Your task to perform on an android device: Open Chrome and go to the settings page Image 0: 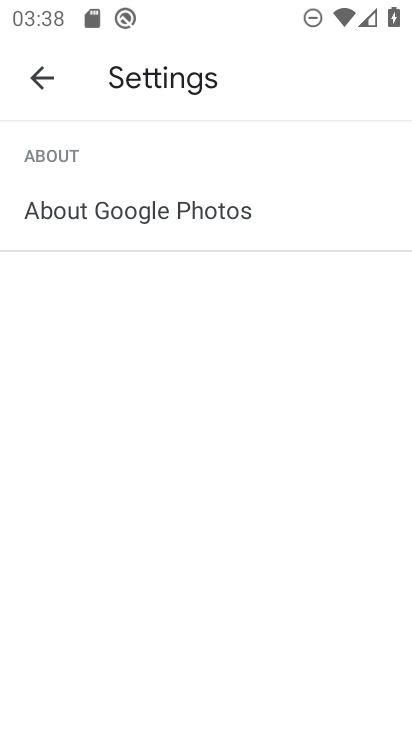
Step 0: press home button
Your task to perform on an android device: Open Chrome and go to the settings page Image 1: 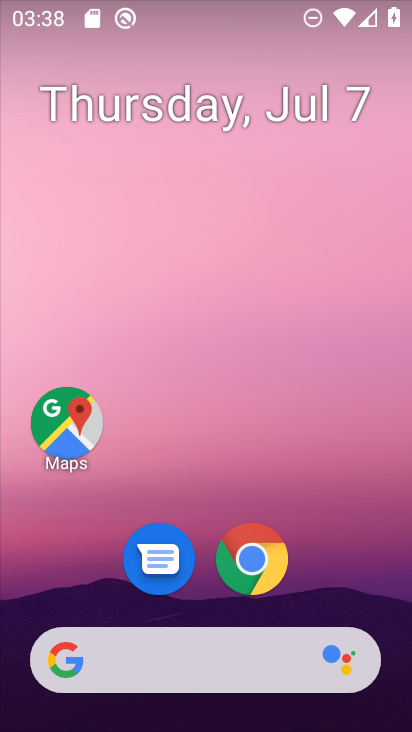
Step 1: drag from (372, 582) to (379, 153)
Your task to perform on an android device: Open Chrome and go to the settings page Image 2: 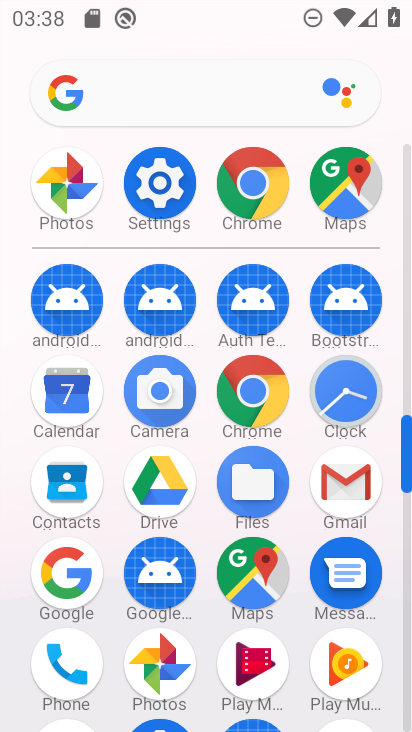
Step 2: click (263, 379)
Your task to perform on an android device: Open Chrome and go to the settings page Image 3: 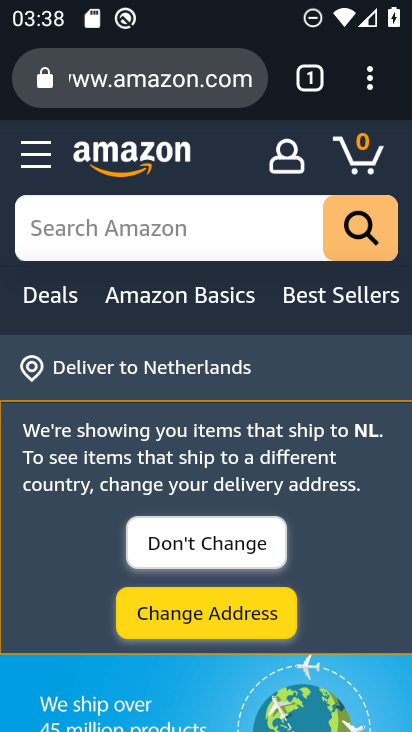
Step 3: click (368, 83)
Your task to perform on an android device: Open Chrome and go to the settings page Image 4: 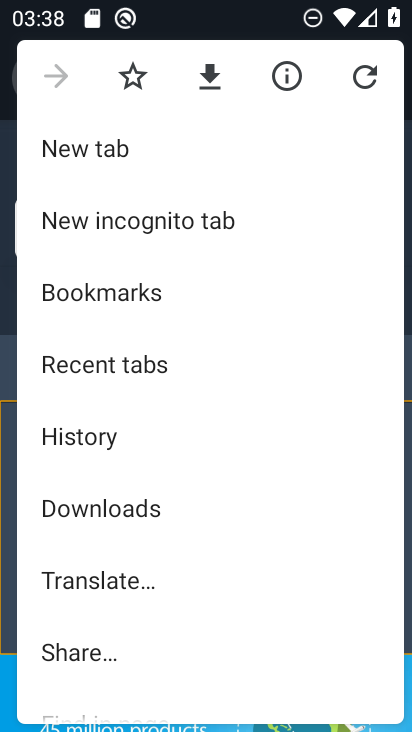
Step 4: drag from (366, 348) to (369, 268)
Your task to perform on an android device: Open Chrome and go to the settings page Image 5: 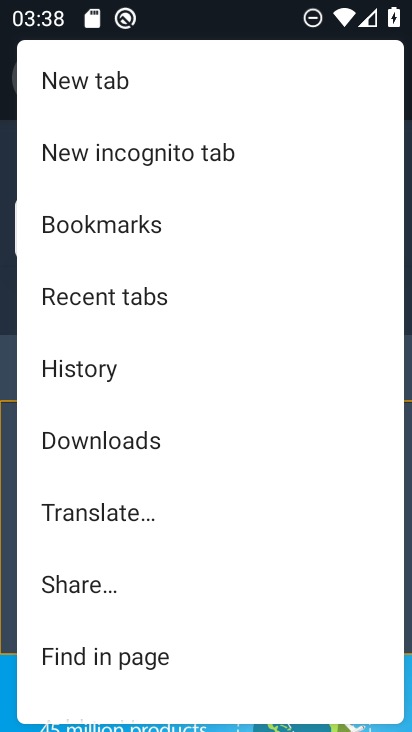
Step 5: drag from (333, 393) to (317, 293)
Your task to perform on an android device: Open Chrome and go to the settings page Image 6: 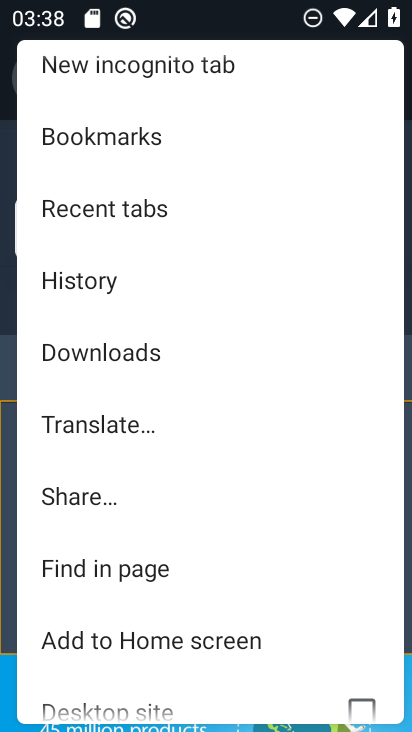
Step 6: drag from (314, 412) to (298, 318)
Your task to perform on an android device: Open Chrome and go to the settings page Image 7: 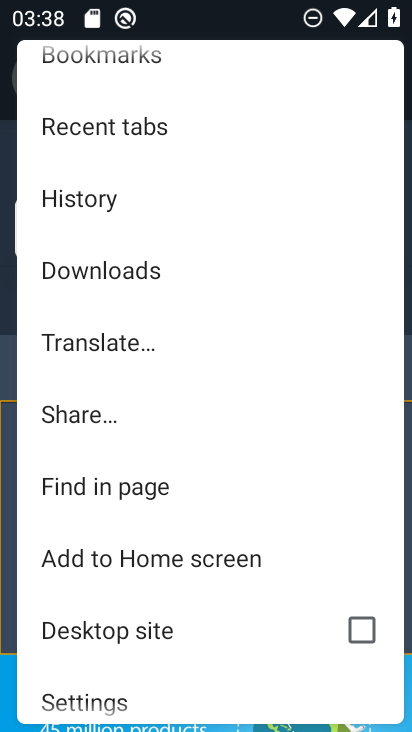
Step 7: drag from (289, 441) to (287, 342)
Your task to perform on an android device: Open Chrome and go to the settings page Image 8: 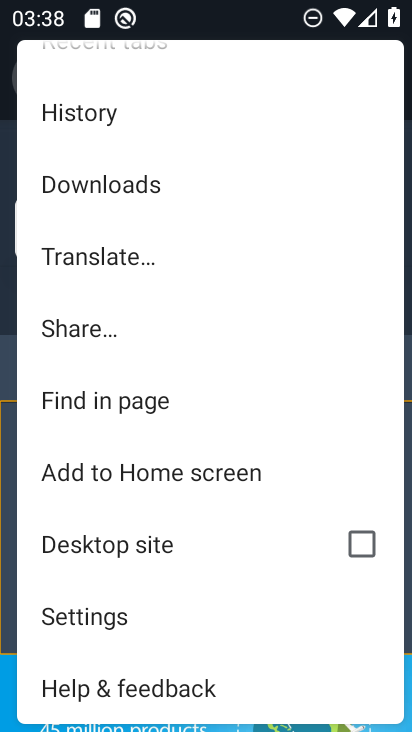
Step 8: drag from (290, 450) to (297, 350)
Your task to perform on an android device: Open Chrome and go to the settings page Image 9: 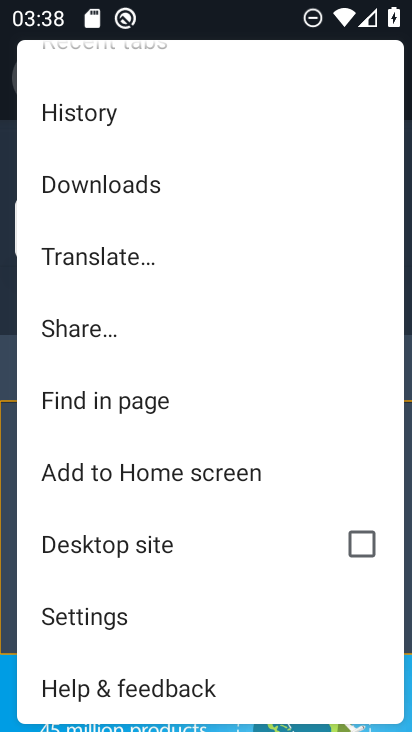
Step 9: click (140, 620)
Your task to perform on an android device: Open Chrome and go to the settings page Image 10: 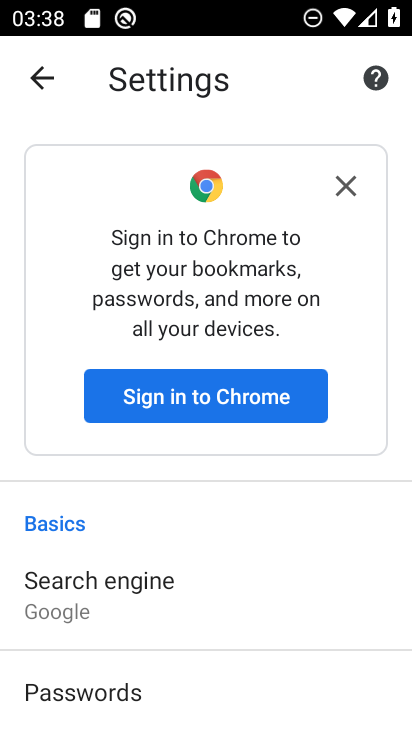
Step 10: task complete